Your task to perform on an android device: set the stopwatch Image 0: 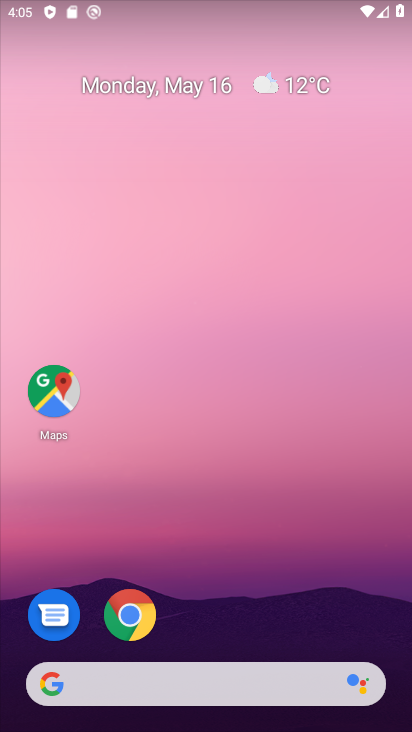
Step 0: drag from (193, 650) to (101, 26)
Your task to perform on an android device: set the stopwatch Image 1: 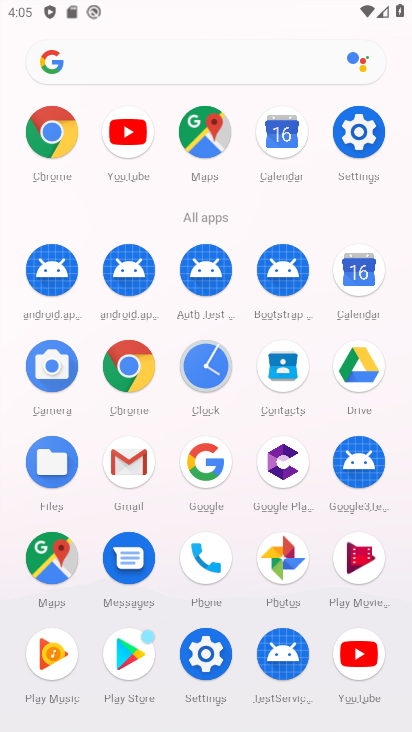
Step 1: click (206, 366)
Your task to perform on an android device: set the stopwatch Image 2: 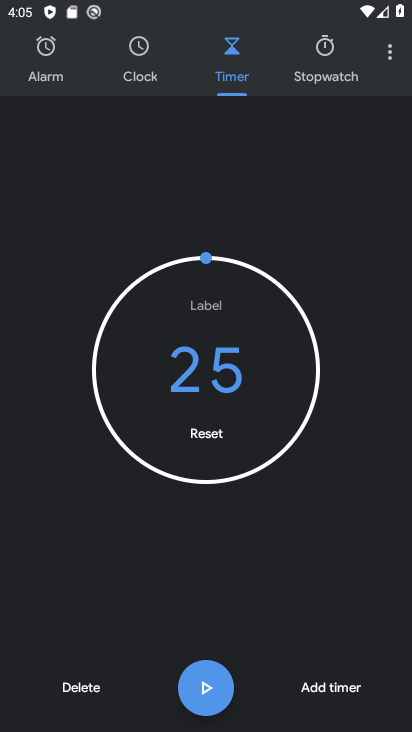
Step 2: click (297, 59)
Your task to perform on an android device: set the stopwatch Image 3: 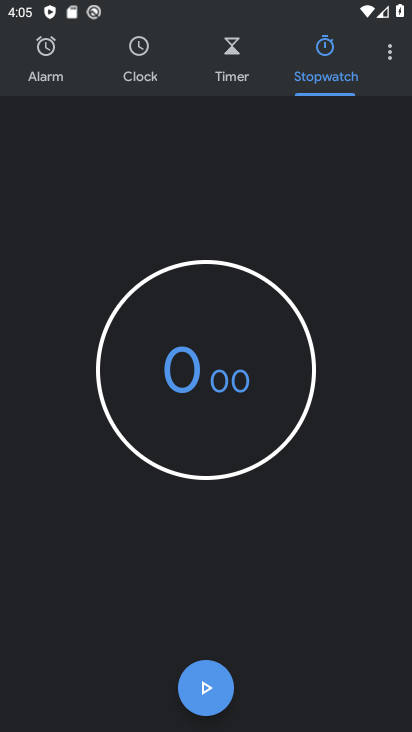
Step 3: click (215, 693)
Your task to perform on an android device: set the stopwatch Image 4: 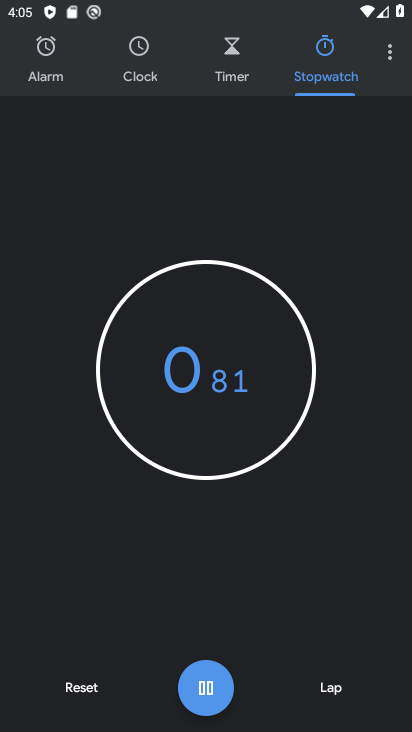
Step 4: click (215, 693)
Your task to perform on an android device: set the stopwatch Image 5: 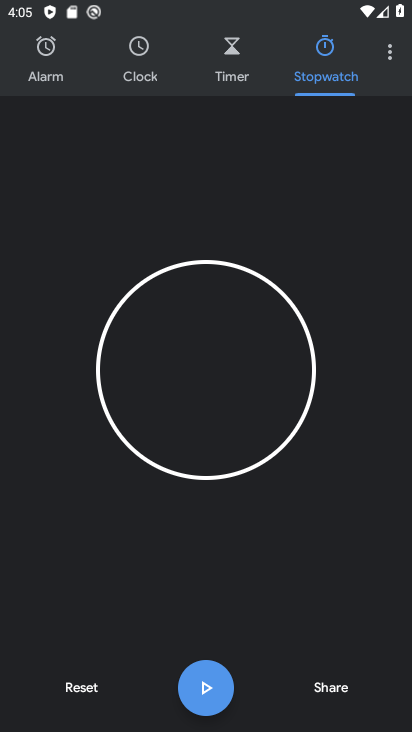
Step 5: task complete